Your task to perform on an android device: Search for vegetarian restaurants on Maps Image 0: 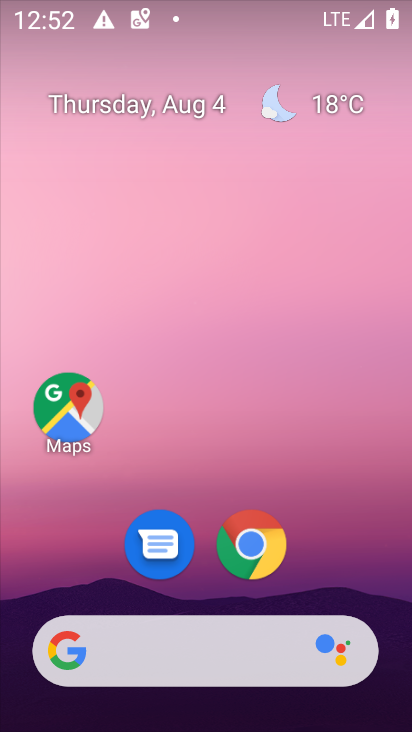
Step 0: click (57, 396)
Your task to perform on an android device: Search for vegetarian restaurants on Maps Image 1: 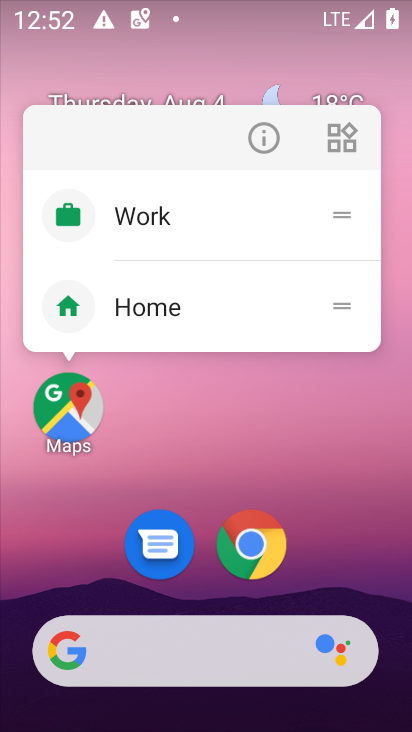
Step 1: click (75, 395)
Your task to perform on an android device: Search for vegetarian restaurants on Maps Image 2: 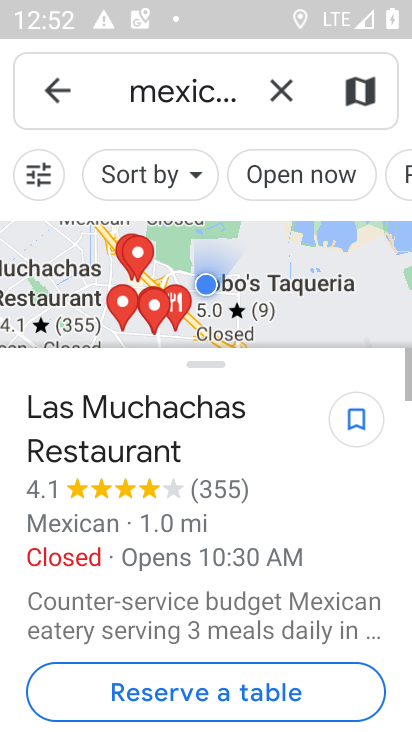
Step 2: click (269, 91)
Your task to perform on an android device: Search for vegetarian restaurants on Maps Image 3: 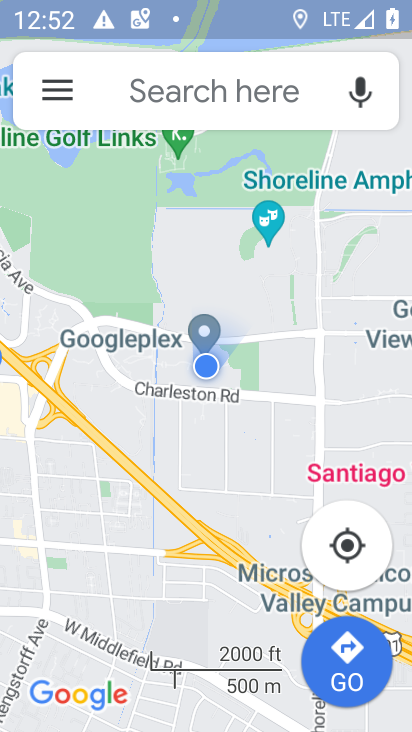
Step 3: click (153, 101)
Your task to perform on an android device: Search for vegetarian restaurants on Maps Image 4: 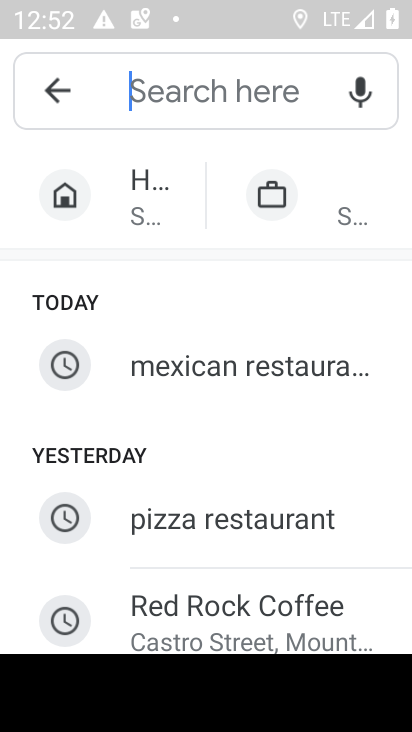
Step 4: type "vegetarian restaurants "
Your task to perform on an android device: Search for vegetarian restaurants on Maps Image 5: 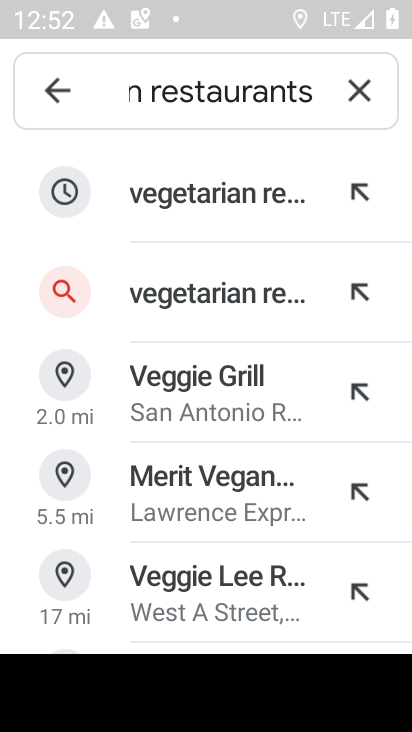
Step 5: click (230, 202)
Your task to perform on an android device: Search for vegetarian restaurants on Maps Image 6: 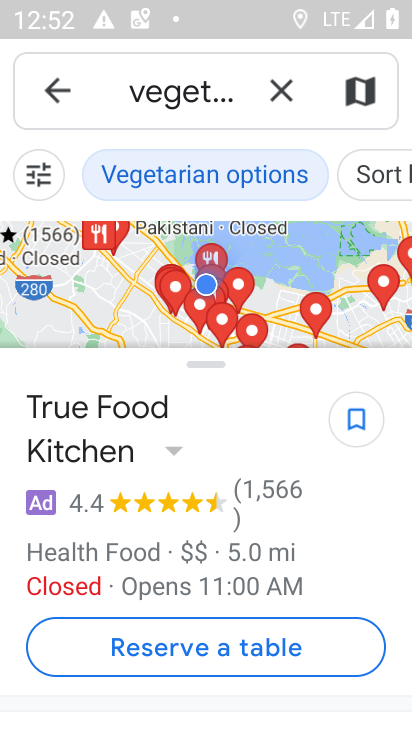
Step 6: task complete